Your task to perform on an android device: turn off location Image 0: 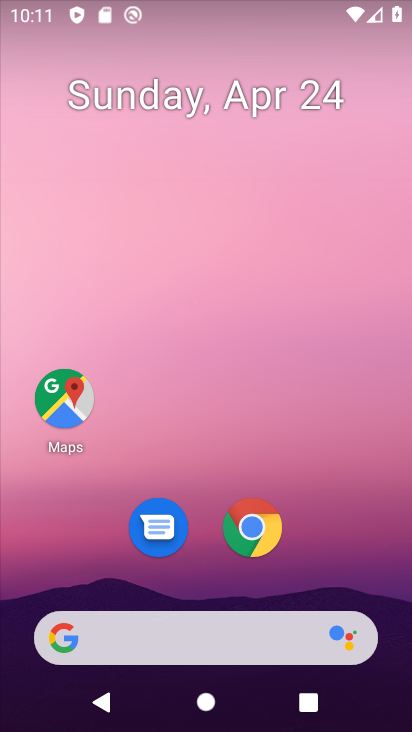
Step 0: drag from (204, 585) to (250, 141)
Your task to perform on an android device: turn off location Image 1: 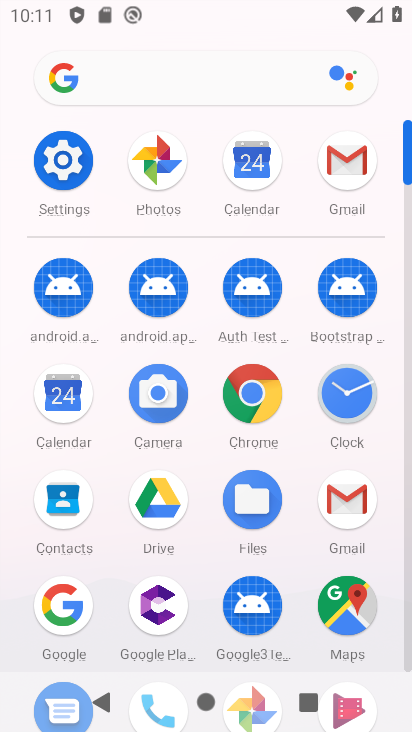
Step 1: click (81, 165)
Your task to perform on an android device: turn off location Image 2: 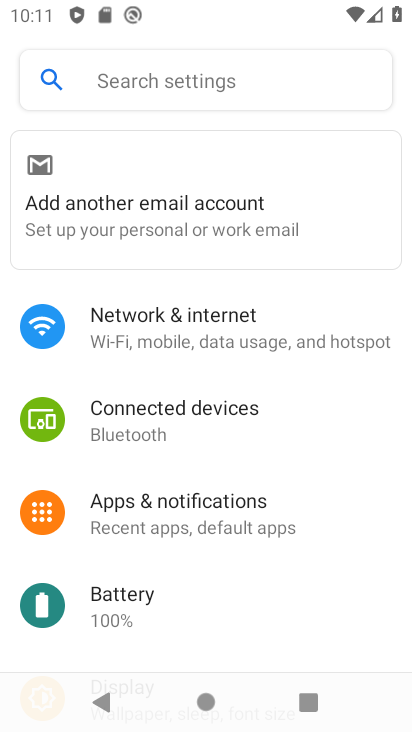
Step 2: drag from (198, 498) to (311, 43)
Your task to perform on an android device: turn off location Image 3: 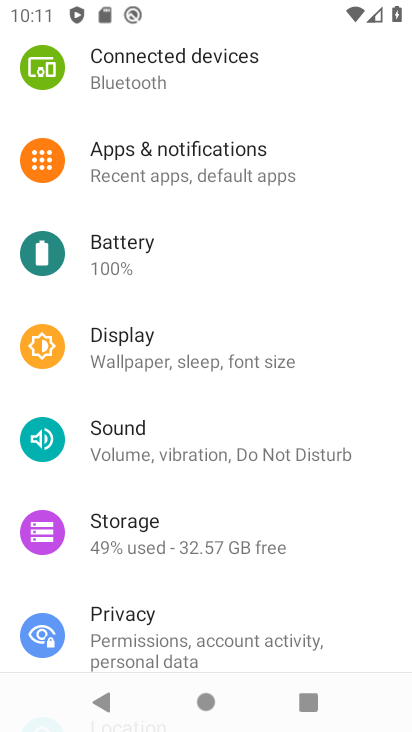
Step 3: drag from (203, 509) to (305, 103)
Your task to perform on an android device: turn off location Image 4: 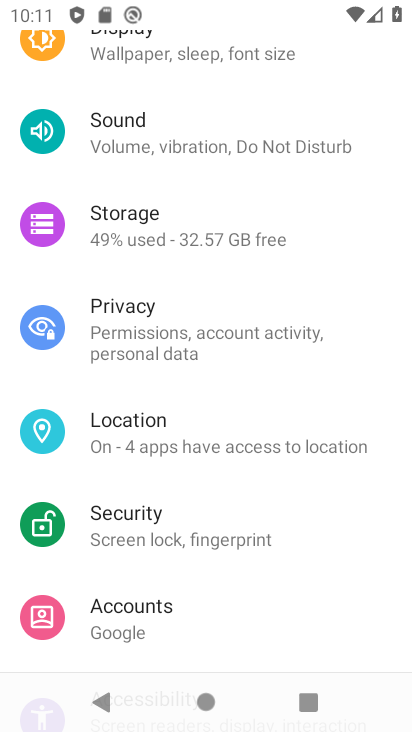
Step 4: click (156, 442)
Your task to perform on an android device: turn off location Image 5: 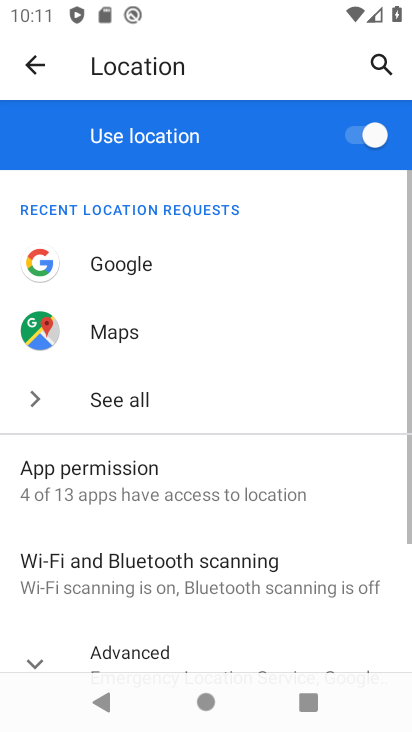
Step 5: click (376, 135)
Your task to perform on an android device: turn off location Image 6: 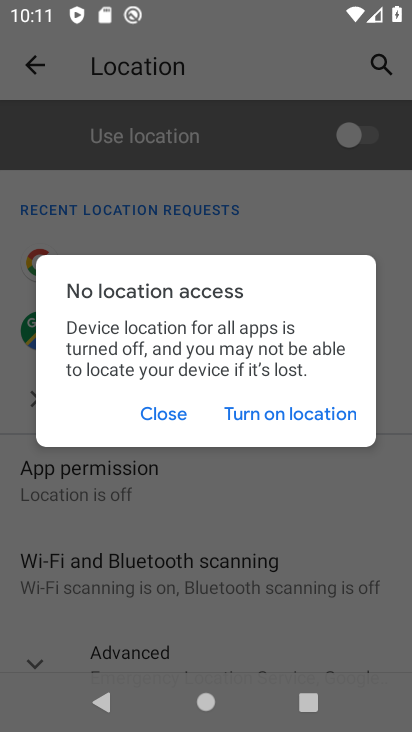
Step 6: click (166, 417)
Your task to perform on an android device: turn off location Image 7: 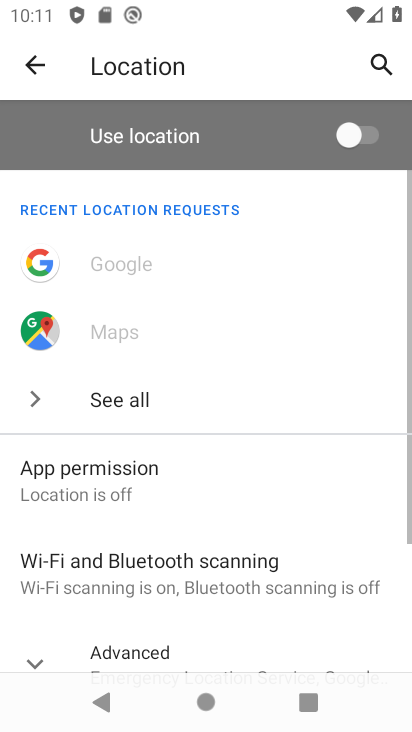
Step 7: task complete